Your task to perform on an android device: find photos in the google photos app Image 0: 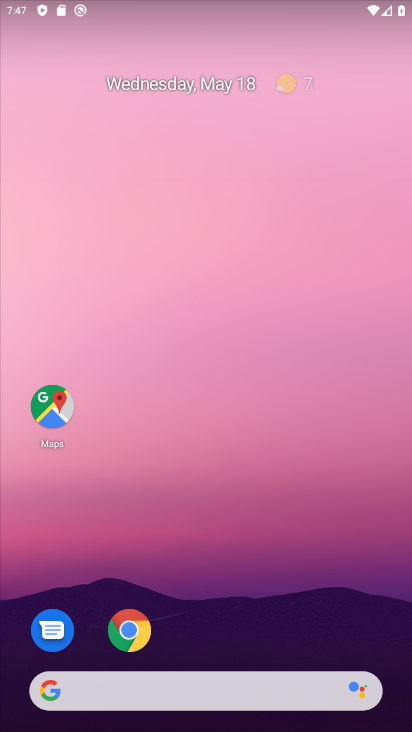
Step 0: drag from (172, 725) to (262, 178)
Your task to perform on an android device: find photos in the google photos app Image 1: 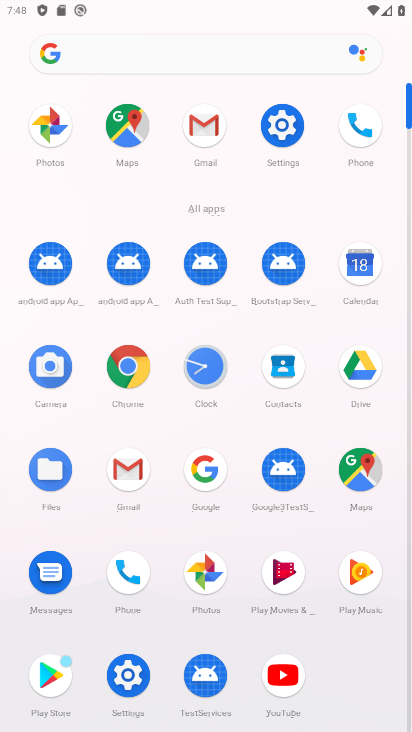
Step 1: click (218, 571)
Your task to perform on an android device: find photos in the google photos app Image 2: 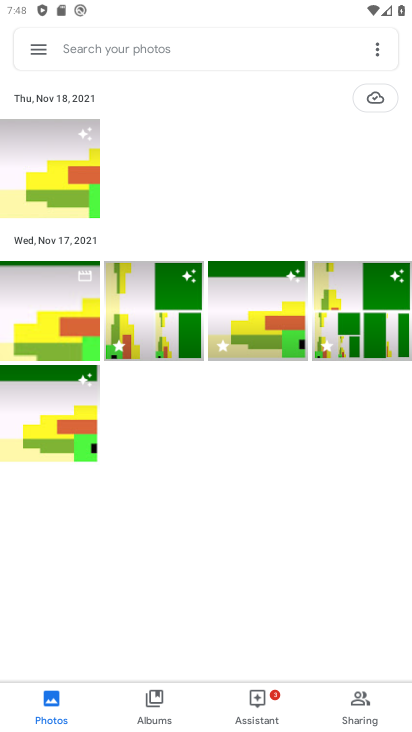
Step 2: task complete